Your task to perform on an android device: Open battery settings Image 0: 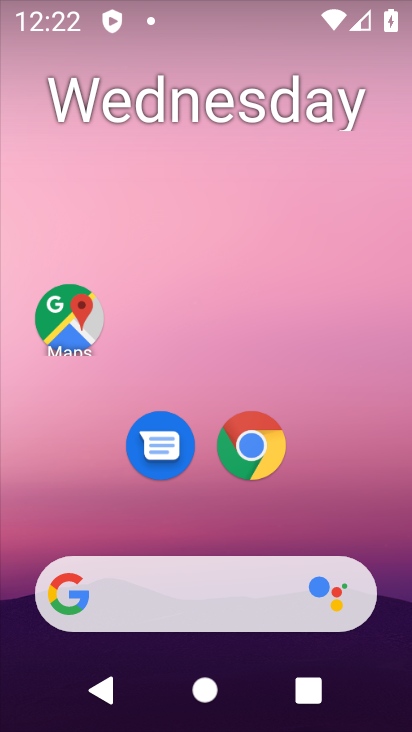
Step 0: drag from (231, 596) to (304, 142)
Your task to perform on an android device: Open battery settings Image 1: 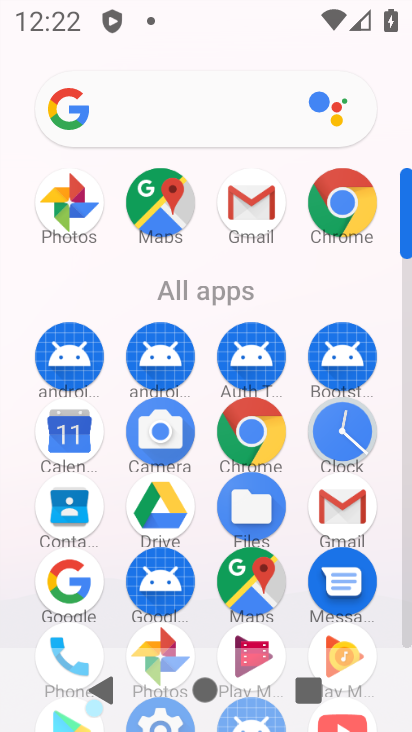
Step 1: drag from (160, 576) to (217, 199)
Your task to perform on an android device: Open battery settings Image 2: 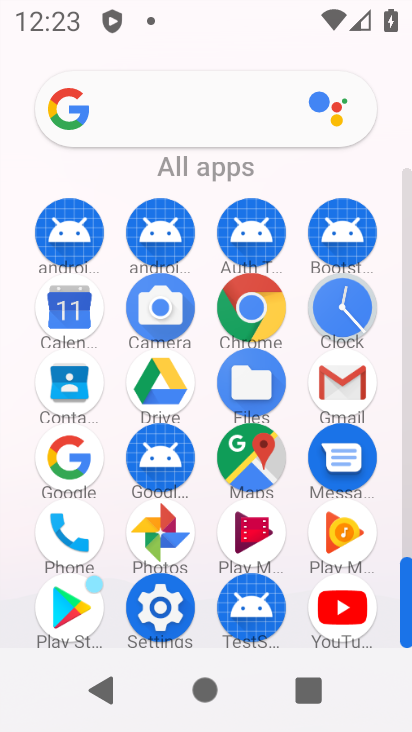
Step 2: click (169, 629)
Your task to perform on an android device: Open battery settings Image 3: 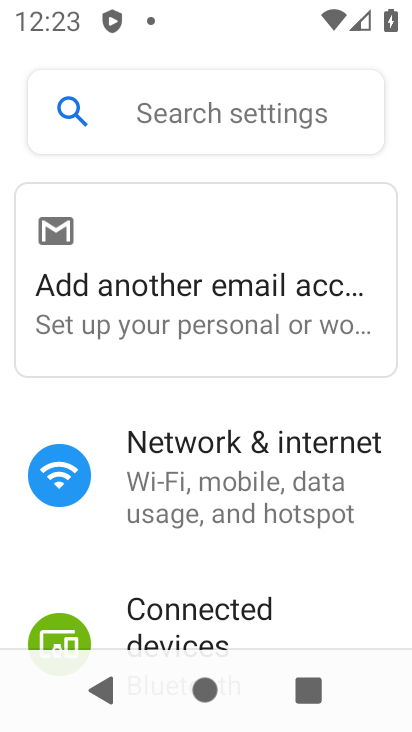
Step 3: drag from (236, 543) to (258, 122)
Your task to perform on an android device: Open battery settings Image 4: 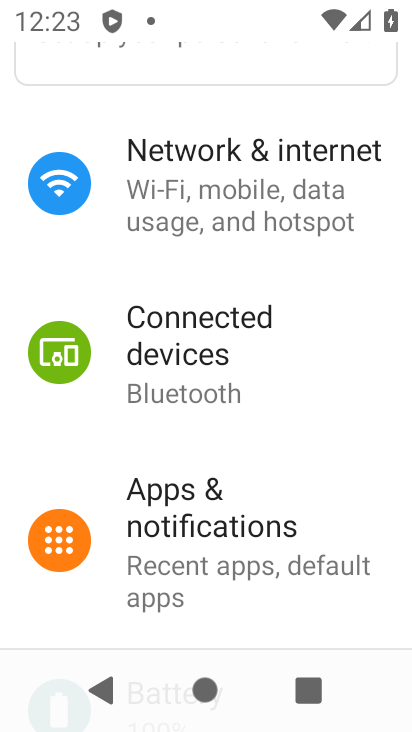
Step 4: drag from (251, 597) to (214, 193)
Your task to perform on an android device: Open battery settings Image 5: 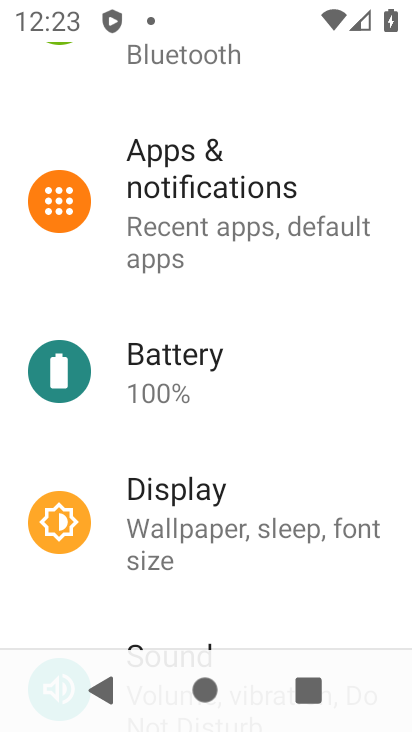
Step 5: drag from (231, 537) to (216, 292)
Your task to perform on an android device: Open battery settings Image 6: 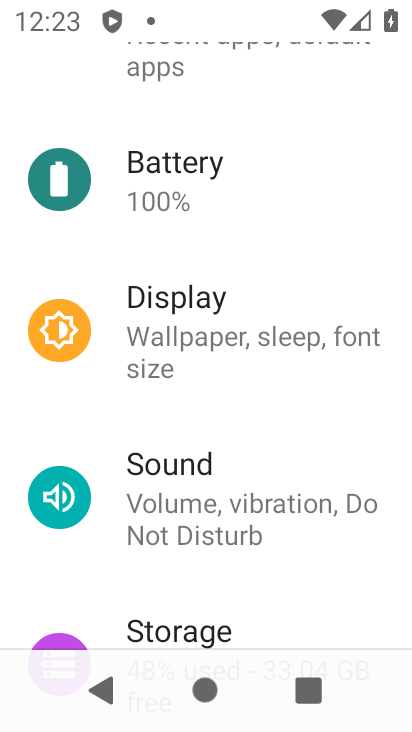
Step 6: click (184, 184)
Your task to perform on an android device: Open battery settings Image 7: 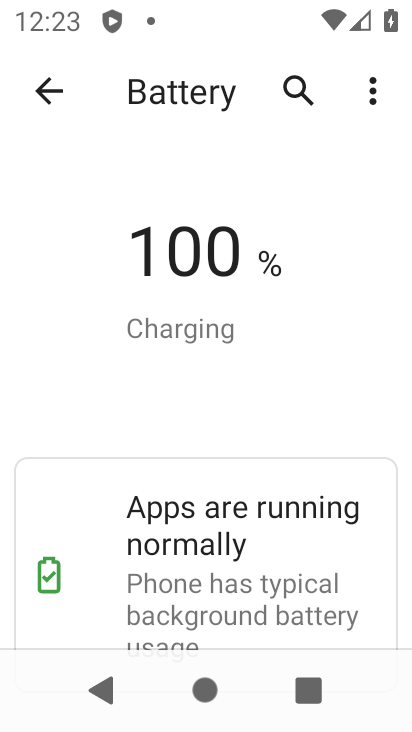
Step 7: task complete